Your task to perform on an android device: remove spam from my inbox in the gmail app Image 0: 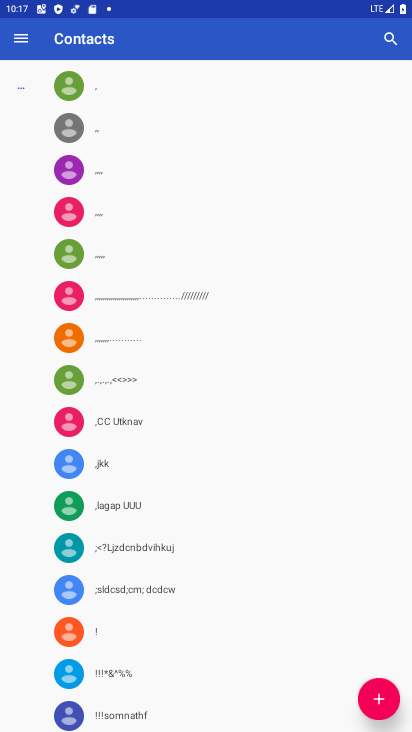
Step 0: press home button
Your task to perform on an android device: remove spam from my inbox in the gmail app Image 1: 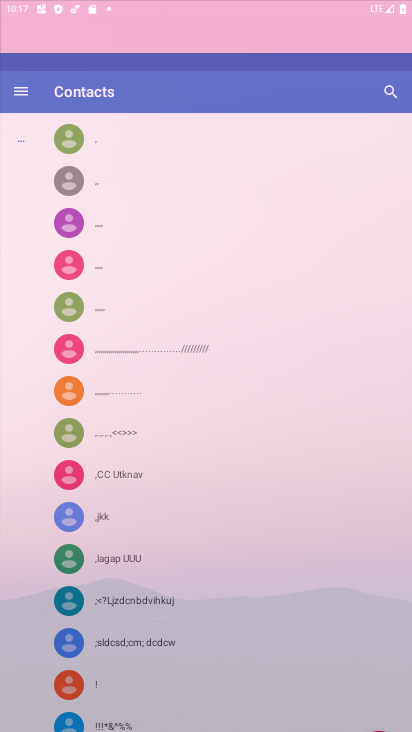
Step 1: press home button
Your task to perform on an android device: remove spam from my inbox in the gmail app Image 2: 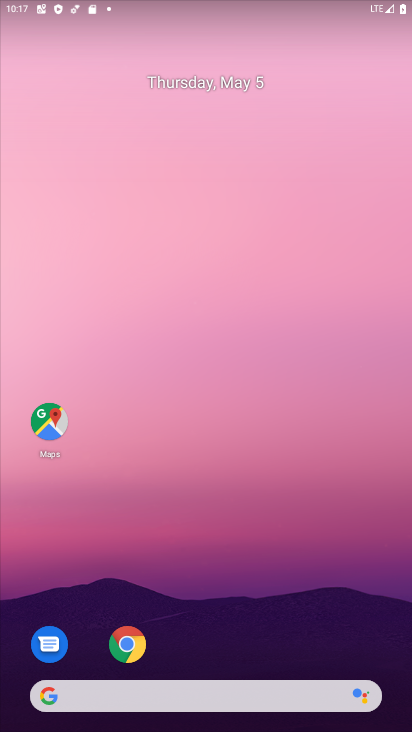
Step 2: click (103, 124)
Your task to perform on an android device: remove spam from my inbox in the gmail app Image 3: 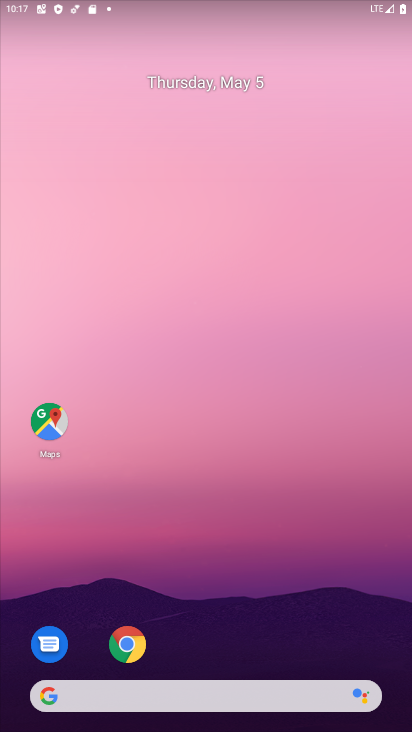
Step 3: drag from (204, 656) to (183, 0)
Your task to perform on an android device: remove spam from my inbox in the gmail app Image 4: 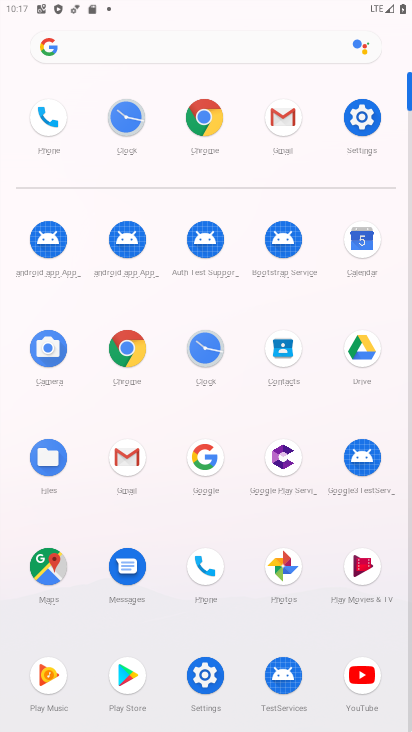
Step 4: click (132, 451)
Your task to perform on an android device: remove spam from my inbox in the gmail app Image 5: 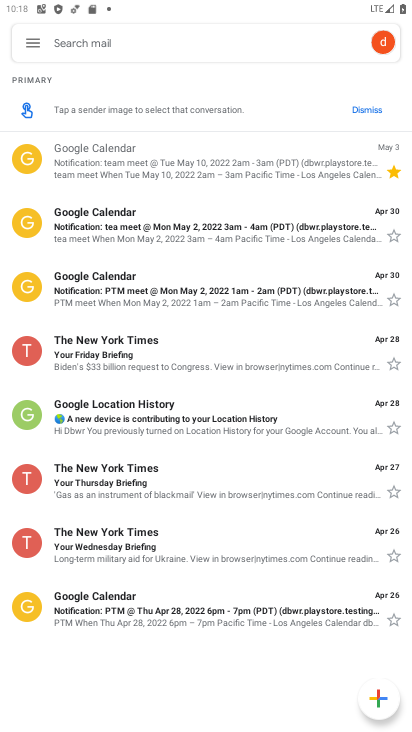
Step 5: click (31, 35)
Your task to perform on an android device: remove spam from my inbox in the gmail app Image 6: 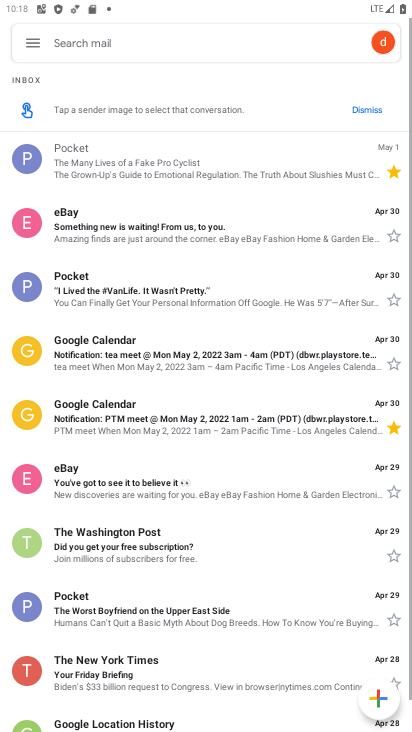
Step 6: click (28, 33)
Your task to perform on an android device: remove spam from my inbox in the gmail app Image 7: 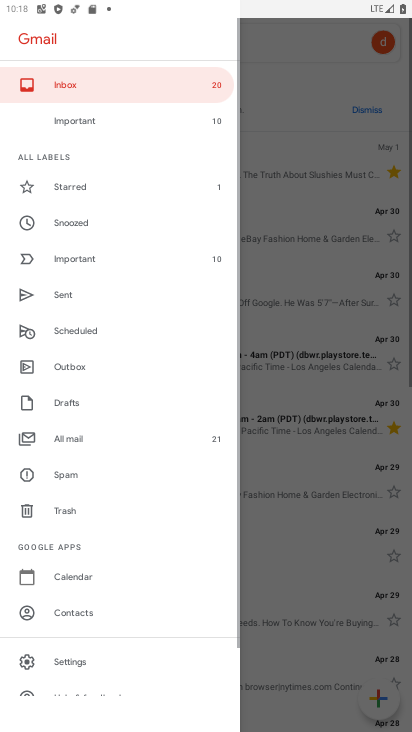
Step 7: click (70, 465)
Your task to perform on an android device: remove spam from my inbox in the gmail app Image 8: 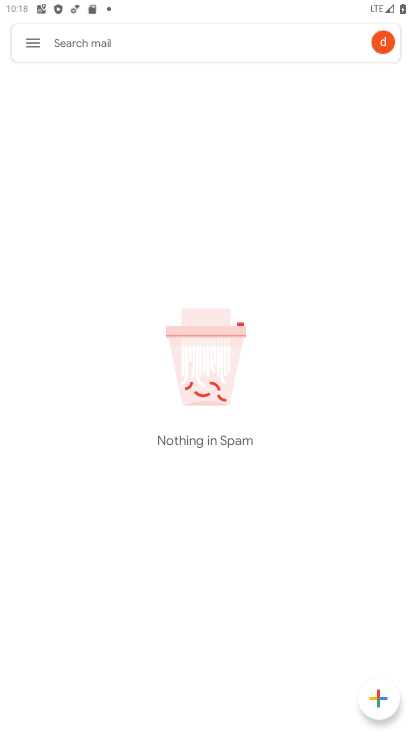
Step 8: task complete